Your task to perform on an android device: Go to accessibility settings Image 0: 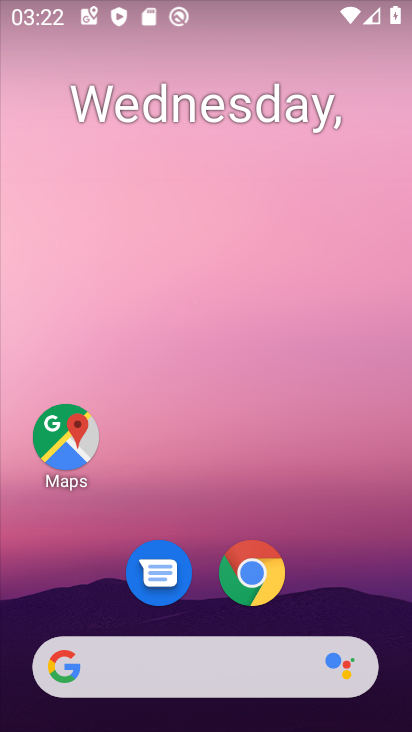
Step 0: drag from (369, 603) to (226, 166)
Your task to perform on an android device: Go to accessibility settings Image 1: 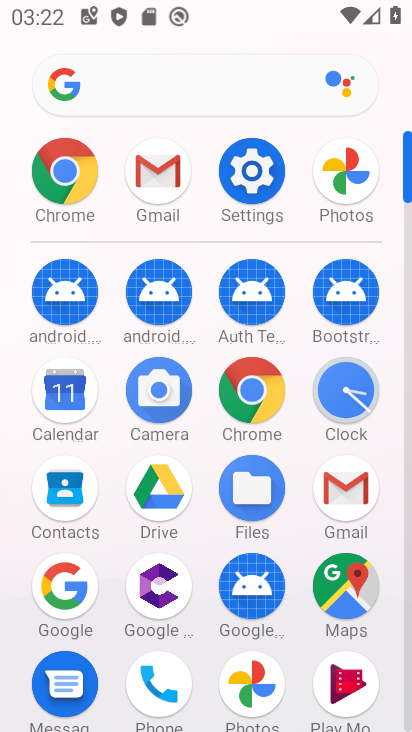
Step 1: click (254, 173)
Your task to perform on an android device: Go to accessibility settings Image 2: 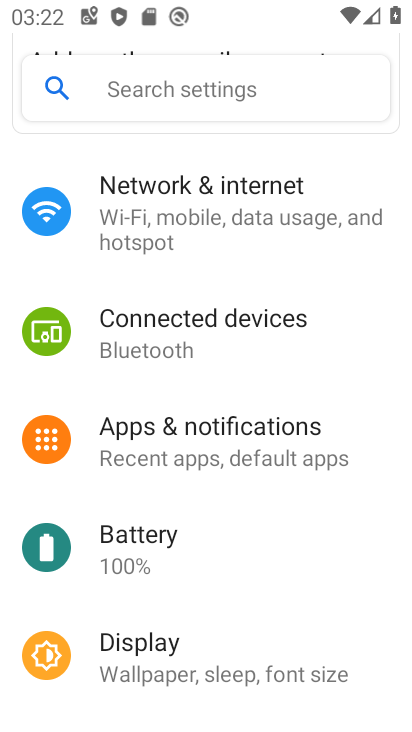
Step 2: drag from (222, 582) to (205, 380)
Your task to perform on an android device: Go to accessibility settings Image 3: 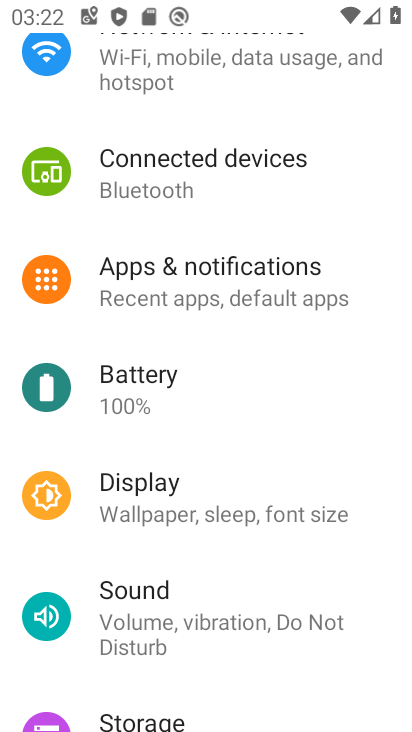
Step 3: drag from (221, 556) to (229, 404)
Your task to perform on an android device: Go to accessibility settings Image 4: 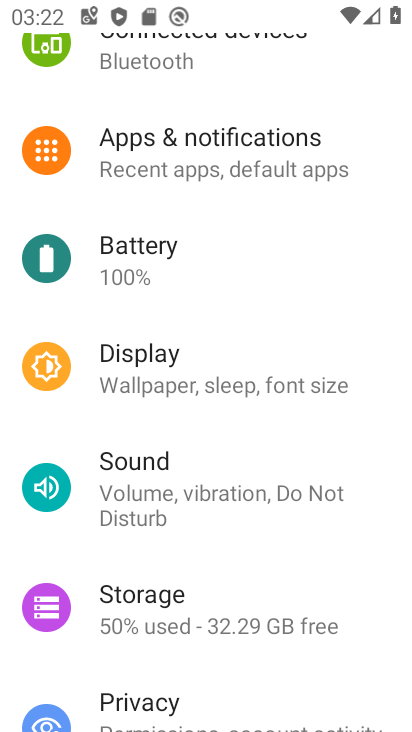
Step 4: drag from (186, 641) to (204, 499)
Your task to perform on an android device: Go to accessibility settings Image 5: 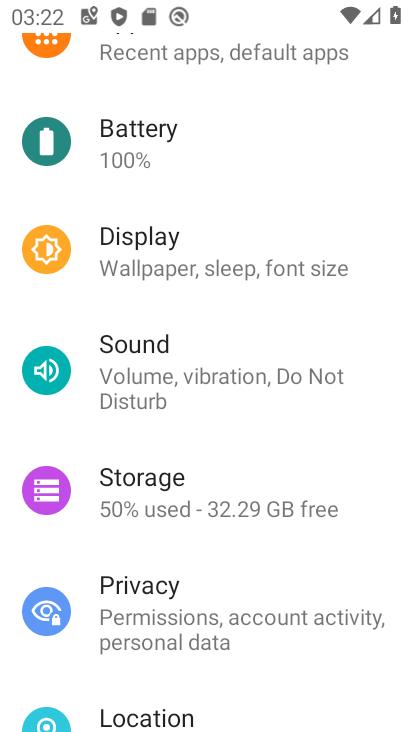
Step 5: drag from (173, 685) to (230, 479)
Your task to perform on an android device: Go to accessibility settings Image 6: 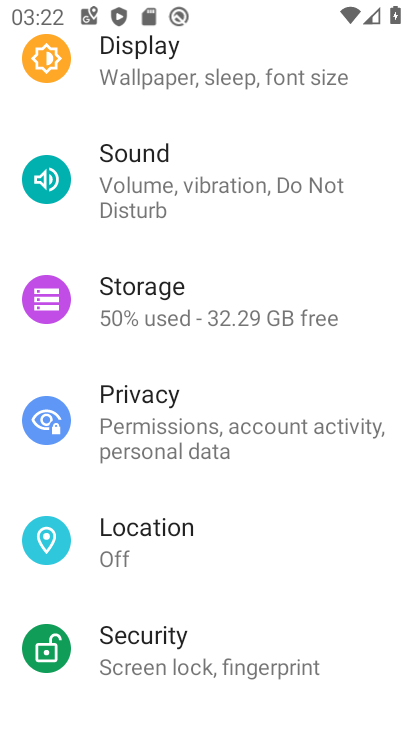
Step 6: drag from (199, 677) to (232, 544)
Your task to perform on an android device: Go to accessibility settings Image 7: 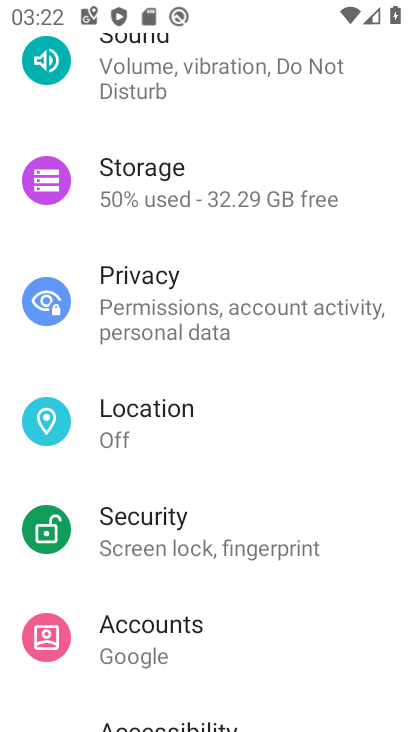
Step 7: drag from (196, 695) to (279, 552)
Your task to perform on an android device: Go to accessibility settings Image 8: 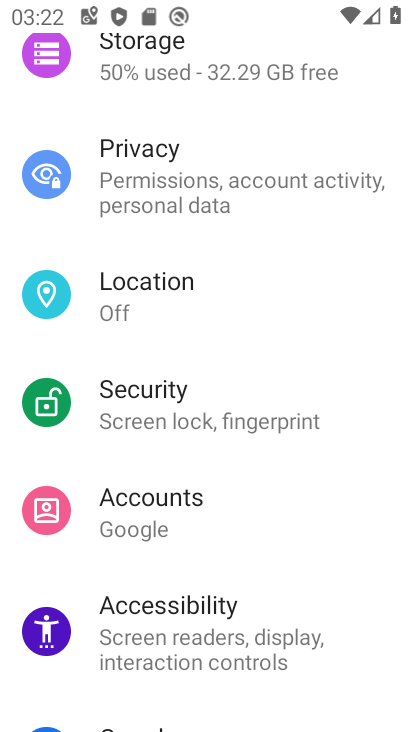
Step 8: click (192, 614)
Your task to perform on an android device: Go to accessibility settings Image 9: 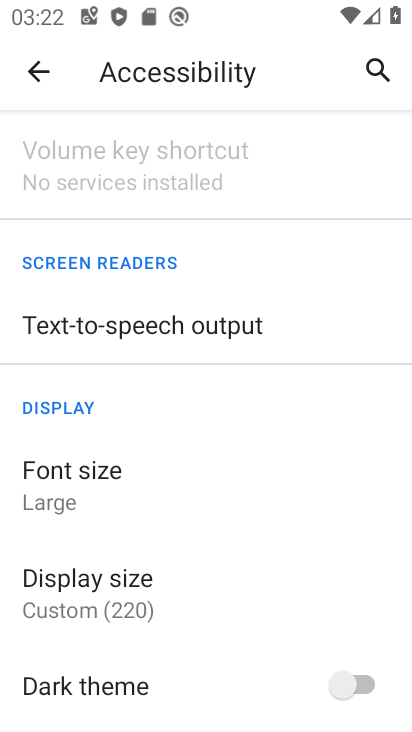
Step 9: task complete